Your task to perform on an android device: toggle location history Image 0: 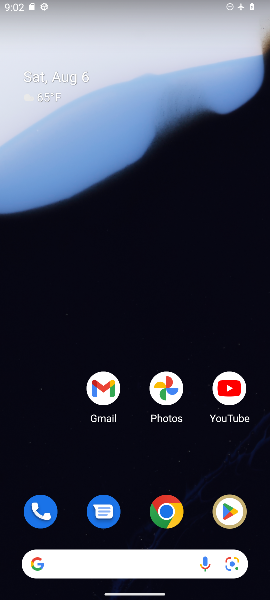
Step 0: press home button
Your task to perform on an android device: toggle location history Image 1: 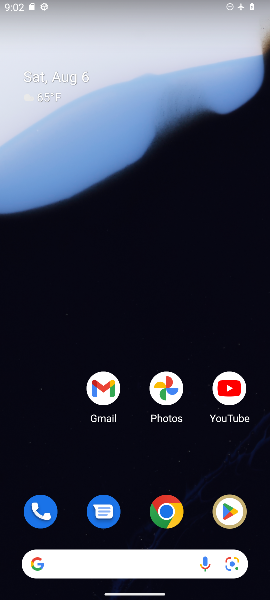
Step 1: press home button
Your task to perform on an android device: toggle location history Image 2: 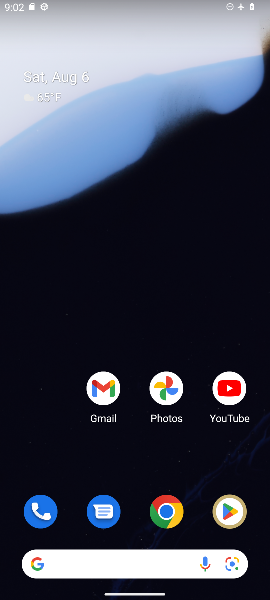
Step 2: drag from (123, 487) to (154, 427)
Your task to perform on an android device: toggle location history Image 3: 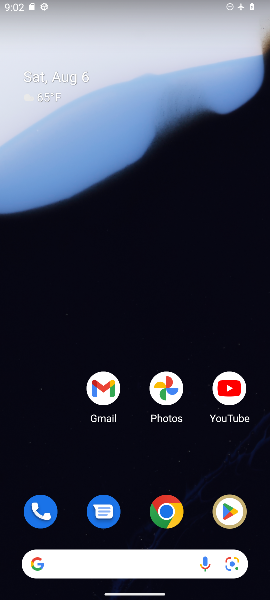
Step 3: drag from (150, 499) to (137, 114)
Your task to perform on an android device: toggle location history Image 4: 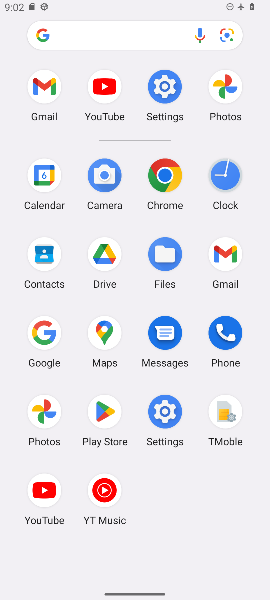
Step 4: click (108, 339)
Your task to perform on an android device: toggle location history Image 5: 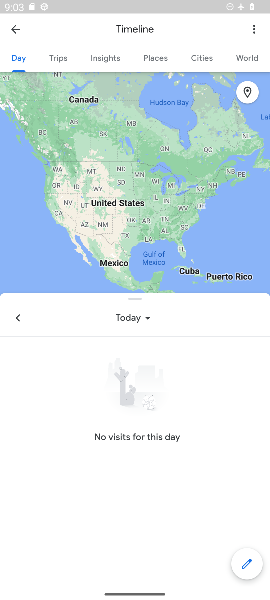
Step 5: click (248, 33)
Your task to perform on an android device: toggle location history Image 6: 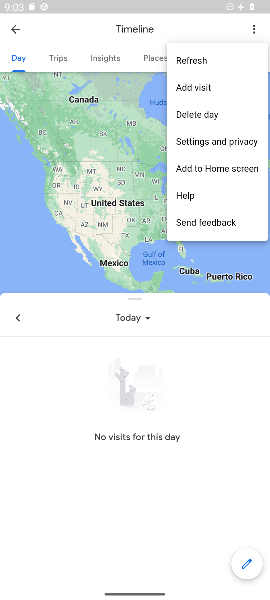
Step 6: click (192, 136)
Your task to perform on an android device: toggle location history Image 7: 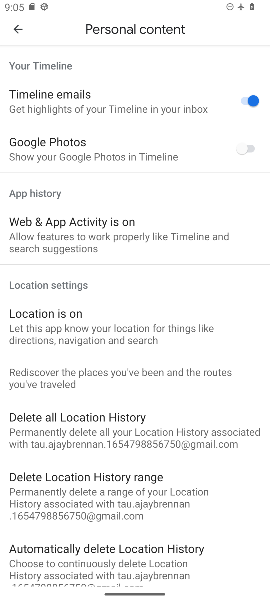
Step 7: click (118, 473)
Your task to perform on an android device: toggle location history Image 8: 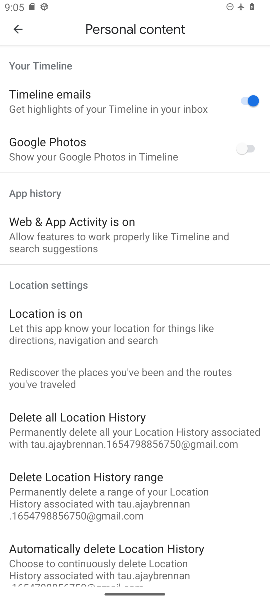
Step 8: drag from (122, 409) to (117, 367)
Your task to perform on an android device: toggle location history Image 9: 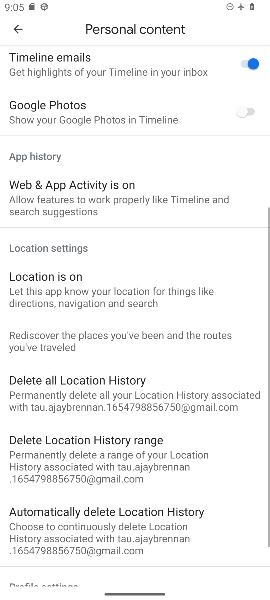
Step 9: drag from (117, 367) to (187, 551)
Your task to perform on an android device: toggle location history Image 10: 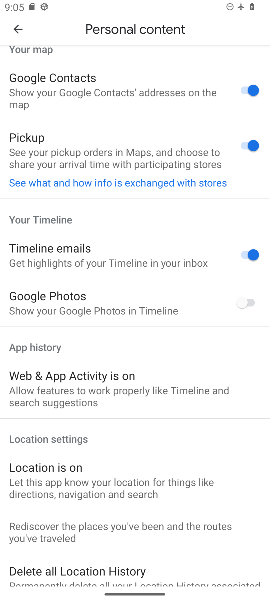
Step 10: click (72, 481)
Your task to perform on an android device: toggle location history Image 11: 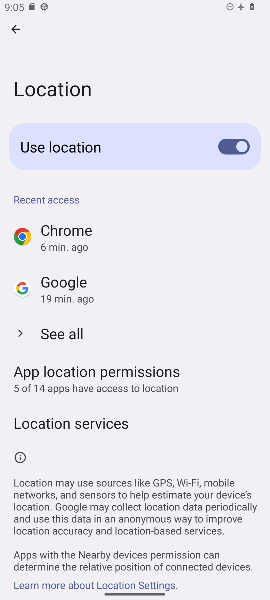
Step 11: task complete